Your task to perform on an android device: check data usage Image 0: 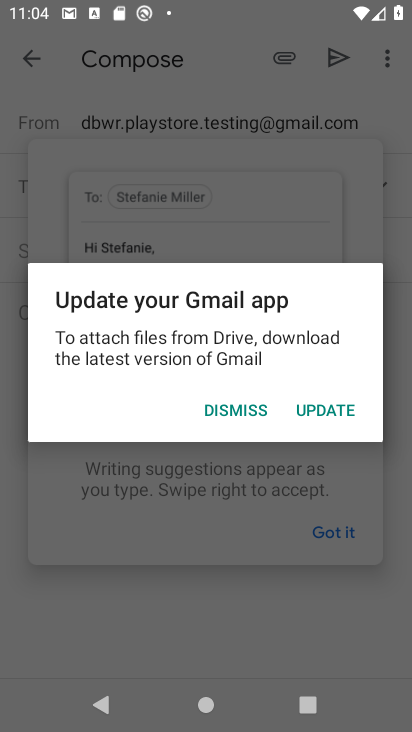
Step 0: press home button
Your task to perform on an android device: check data usage Image 1: 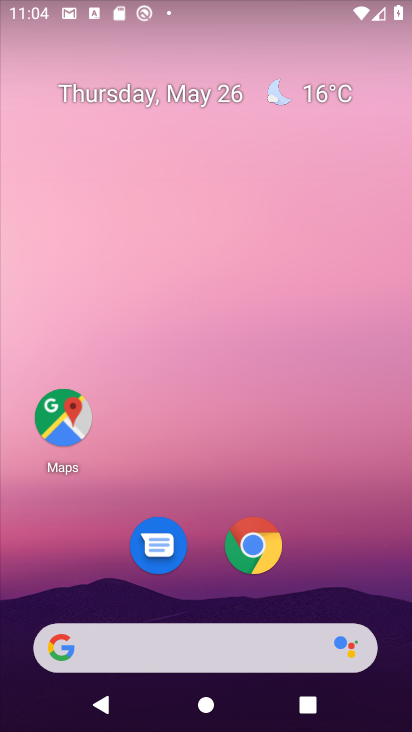
Step 1: drag from (194, 621) to (173, 65)
Your task to perform on an android device: check data usage Image 2: 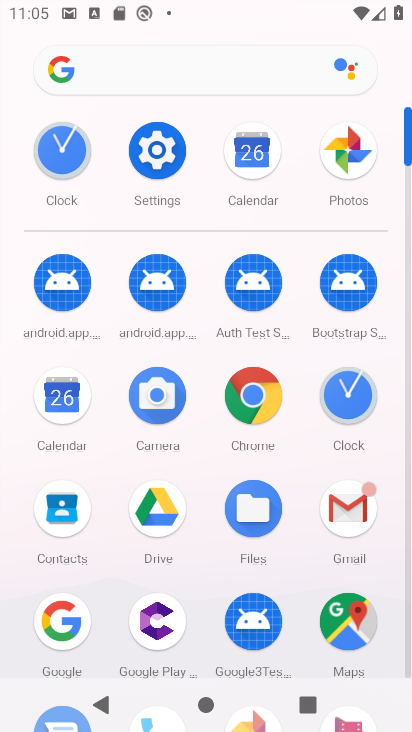
Step 2: click (169, 159)
Your task to perform on an android device: check data usage Image 3: 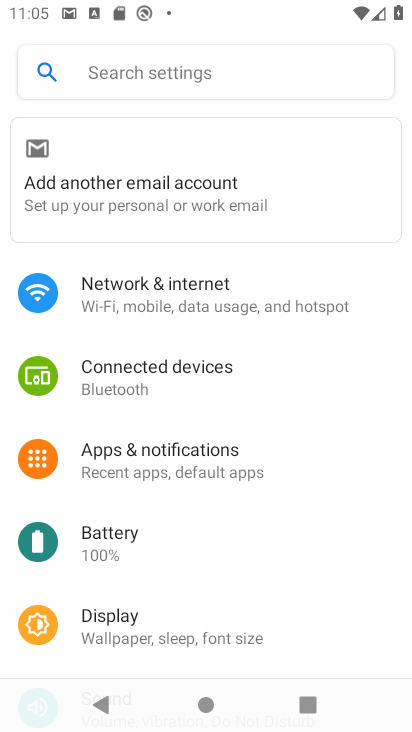
Step 3: click (163, 314)
Your task to perform on an android device: check data usage Image 4: 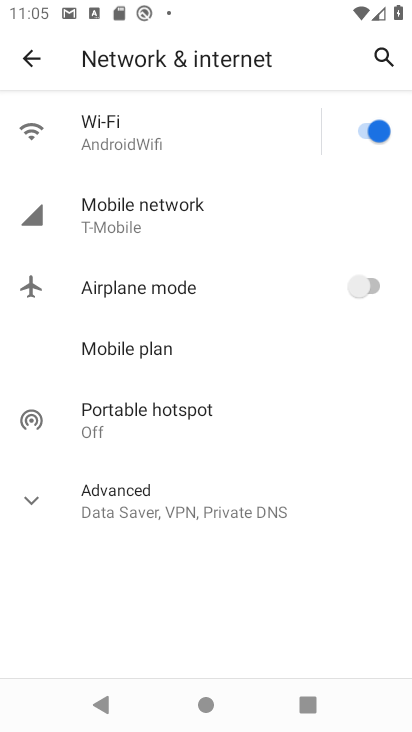
Step 4: click (136, 213)
Your task to perform on an android device: check data usage Image 5: 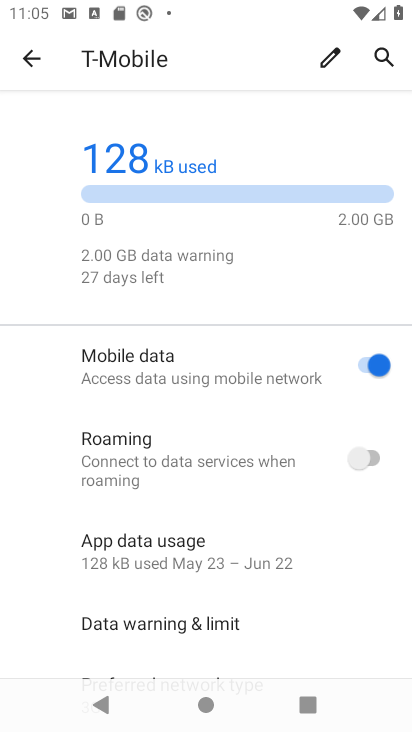
Step 5: click (152, 542)
Your task to perform on an android device: check data usage Image 6: 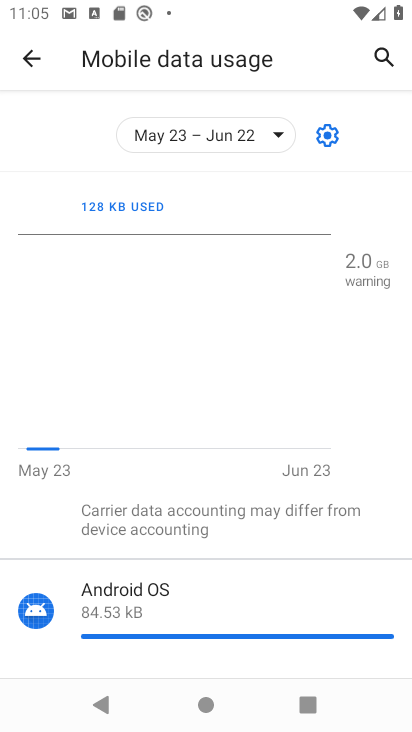
Step 6: task complete